Your task to perform on an android device: turn on showing notifications on the lock screen Image 0: 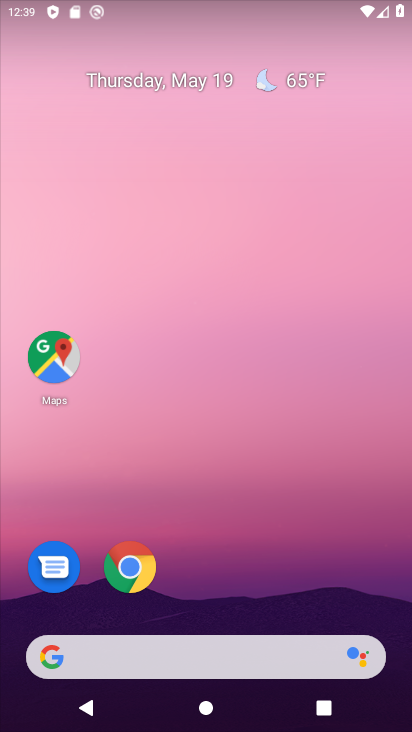
Step 0: drag from (256, 584) to (275, 61)
Your task to perform on an android device: turn on showing notifications on the lock screen Image 1: 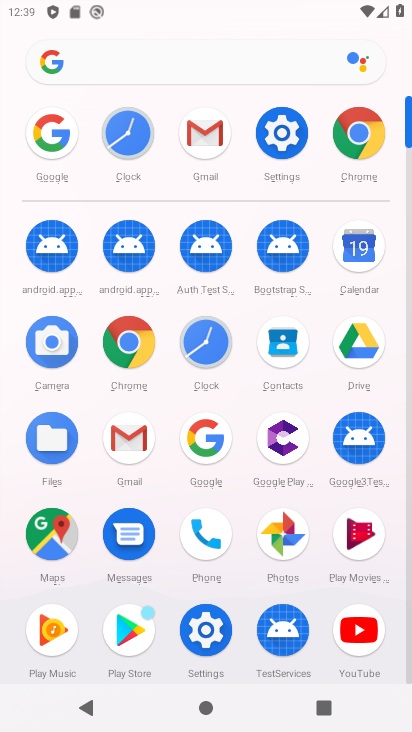
Step 1: click (279, 126)
Your task to perform on an android device: turn on showing notifications on the lock screen Image 2: 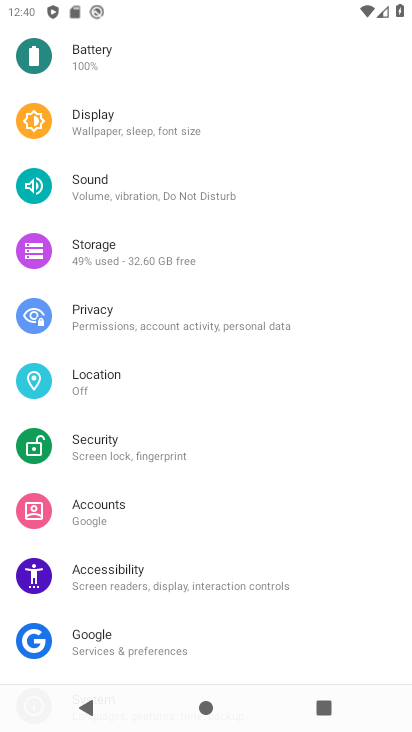
Step 2: drag from (270, 128) to (289, 450)
Your task to perform on an android device: turn on showing notifications on the lock screen Image 3: 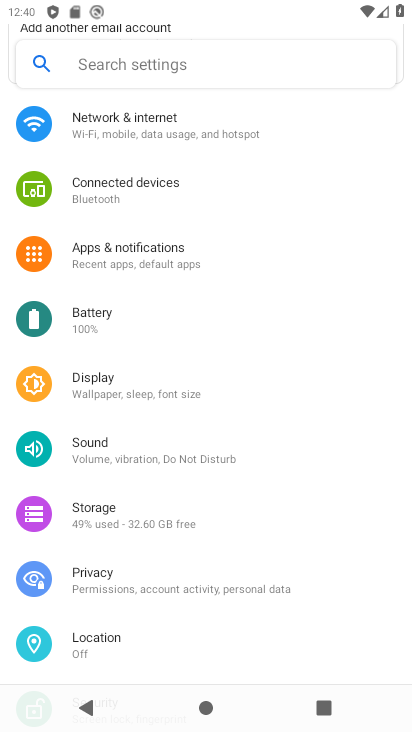
Step 3: click (171, 256)
Your task to perform on an android device: turn on showing notifications on the lock screen Image 4: 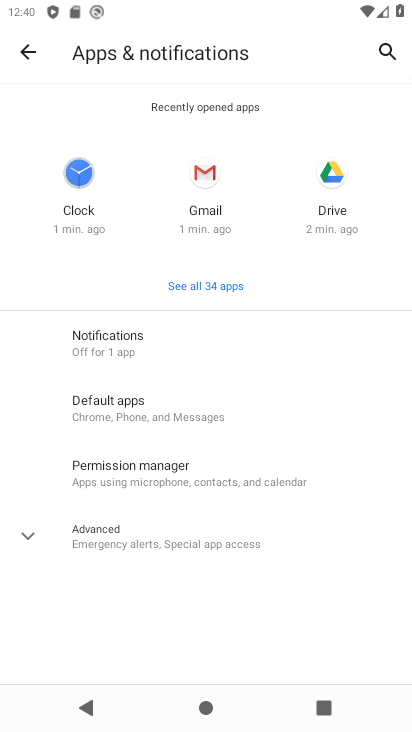
Step 4: click (135, 336)
Your task to perform on an android device: turn on showing notifications on the lock screen Image 5: 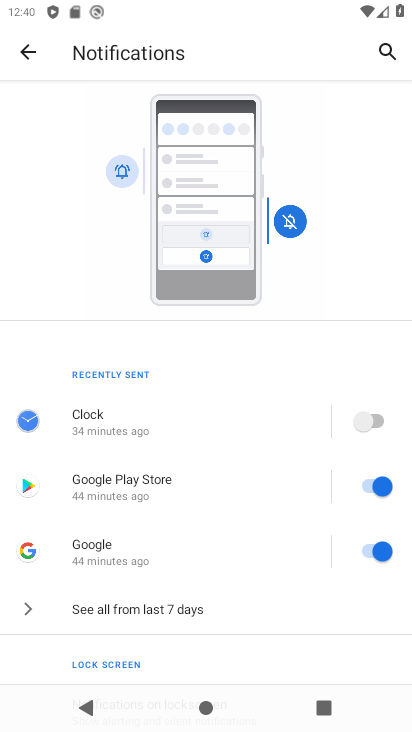
Step 5: drag from (223, 601) to (233, 274)
Your task to perform on an android device: turn on showing notifications on the lock screen Image 6: 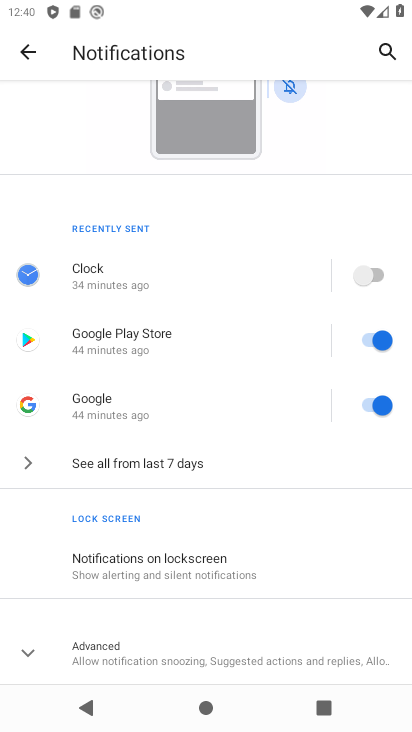
Step 6: click (236, 561)
Your task to perform on an android device: turn on showing notifications on the lock screen Image 7: 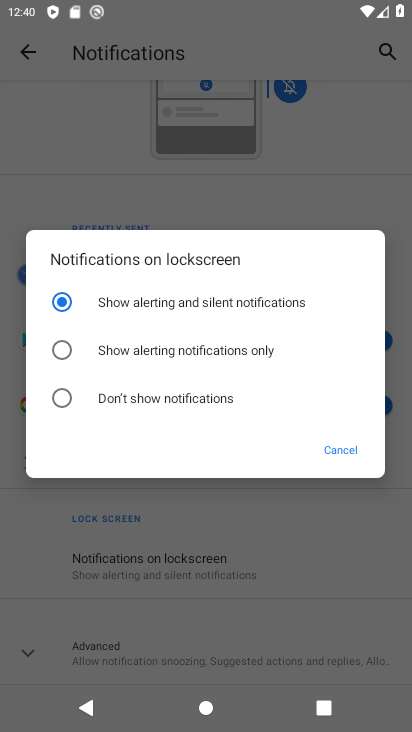
Step 7: click (122, 300)
Your task to perform on an android device: turn on showing notifications on the lock screen Image 8: 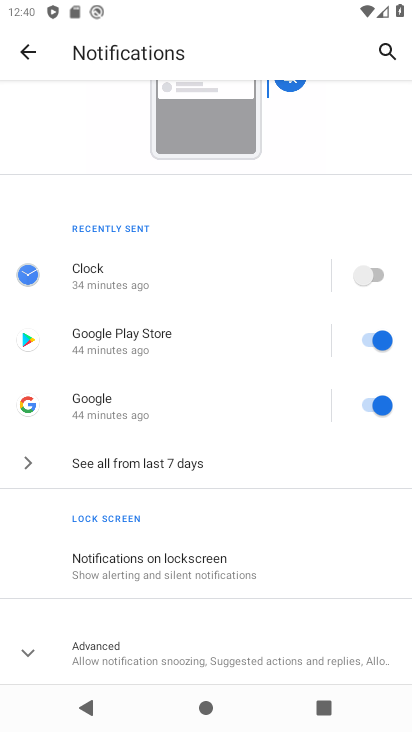
Step 8: task complete